Your task to perform on an android device: Open calendar and show me the second week of next month Image 0: 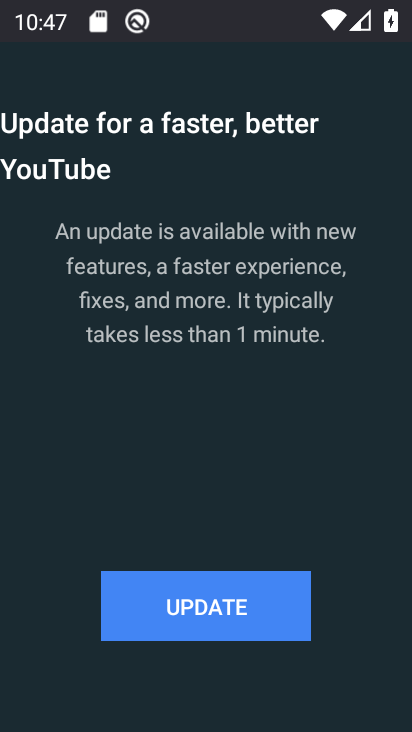
Step 0: press home button
Your task to perform on an android device: Open calendar and show me the second week of next month Image 1: 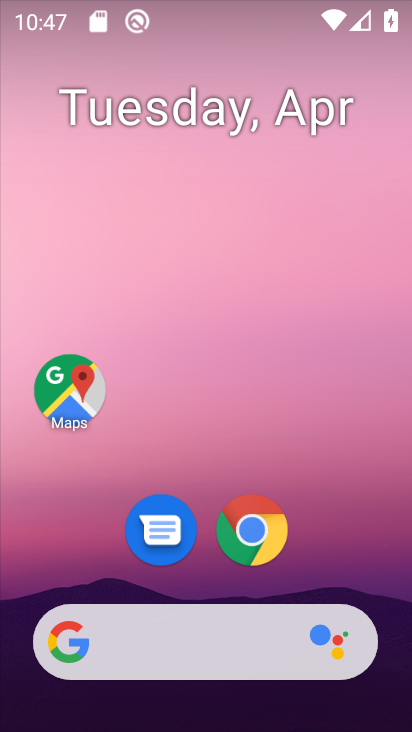
Step 1: drag from (181, 509) to (242, 206)
Your task to perform on an android device: Open calendar and show me the second week of next month Image 2: 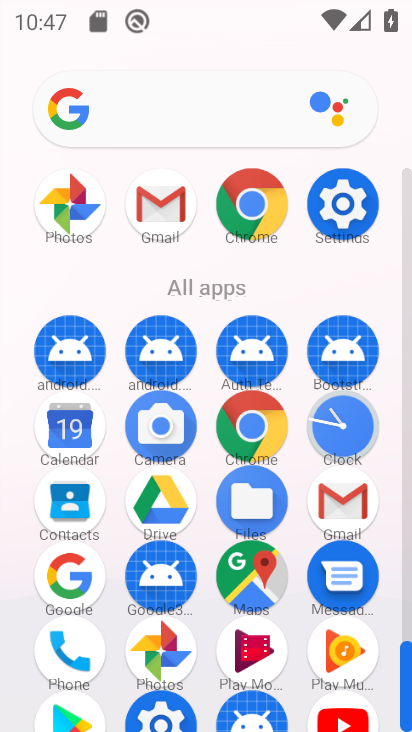
Step 2: click (76, 436)
Your task to perform on an android device: Open calendar and show me the second week of next month Image 3: 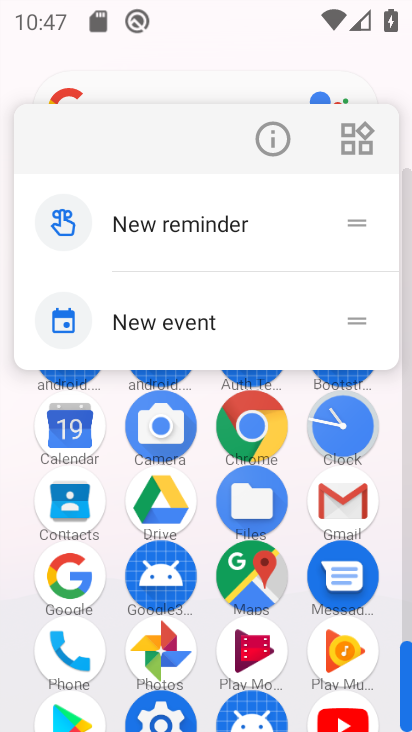
Step 3: click (77, 442)
Your task to perform on an android device: Open calendar and show me the second week of next month Image 4: 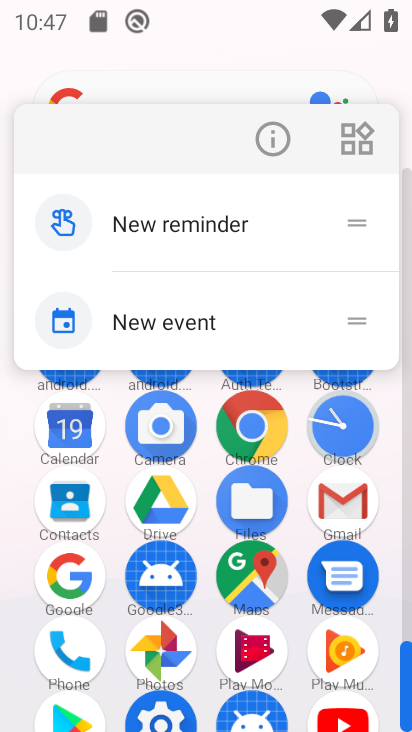
Step 4: click (70, 442)
Your task to perform on an android device: Open calendar and show me the second week of next month Image 5: 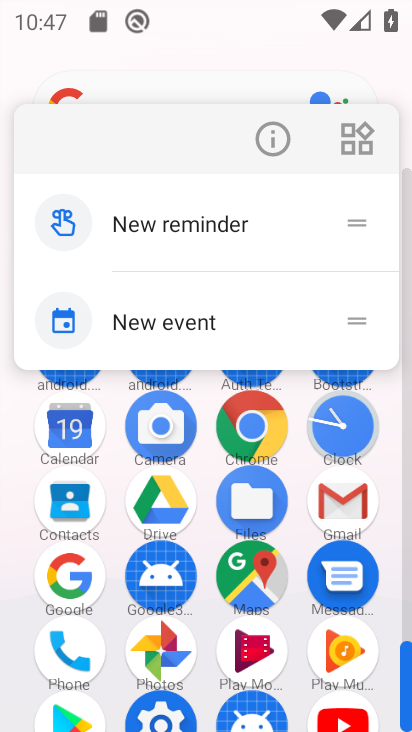
Step 5: click (67, 433)
Your task to perform on an android device: Open calendar and show me the second week of next month Image 6: 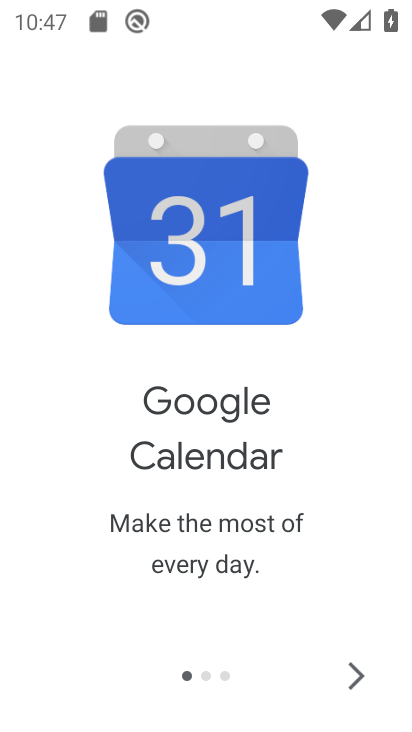
Step 6: click (350, 667)
Your task to perform on an android device: Open calendar and show me the second week of next month Image 7: 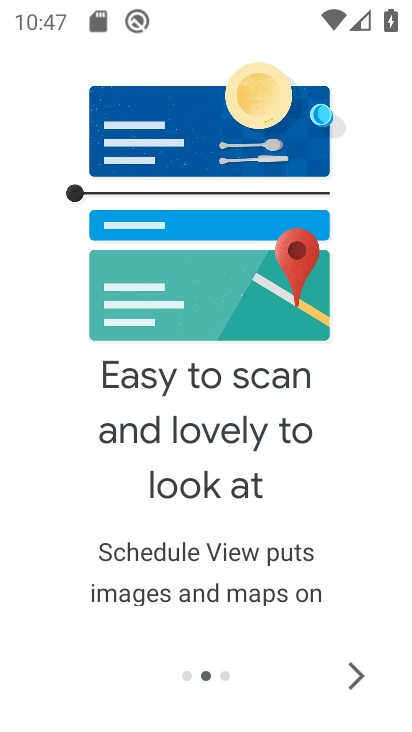
Step 7: click (354, 662)
Your task to perform on an android device: Open calendar and show me the second week of next month Image 8: 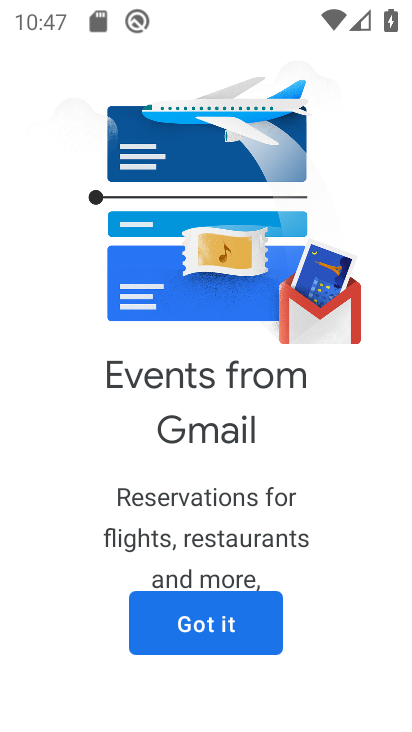
Step 8: click (222, 629)
Your task to perform on an android device: Open calendar and show me the second week of next month Image 9: 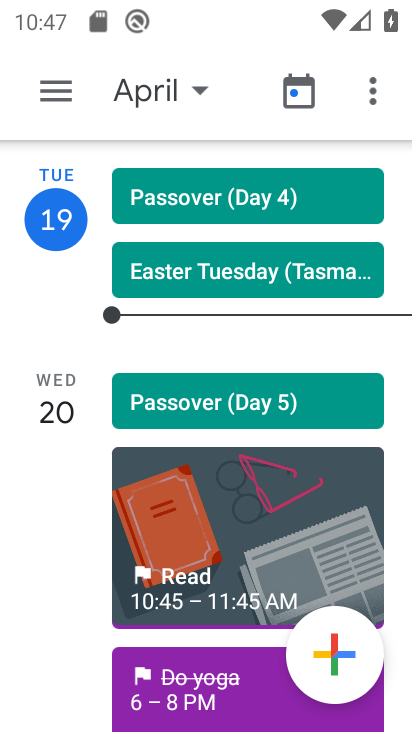
Step 9: click (155, 95)
Your task to perform on an android device: Open calendar and show me the second week of next month Image 10: 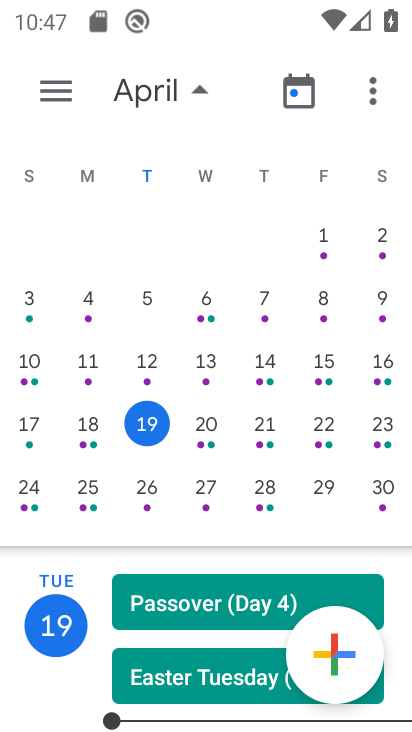
Step 10: drag from (334, 394) to (21, 314)
Your task to perform on an android device: Open calendar and show me the second week of next month Image 11: 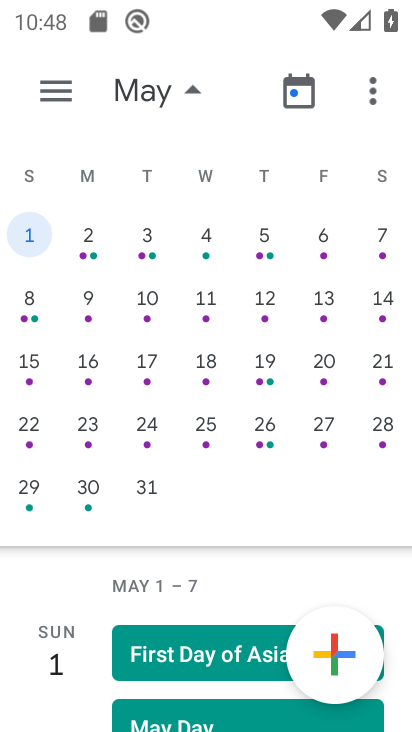
Step 11: click (28, 302)
Your task to perform on an android device: Open calendar and show me the second week of next month Image 12: 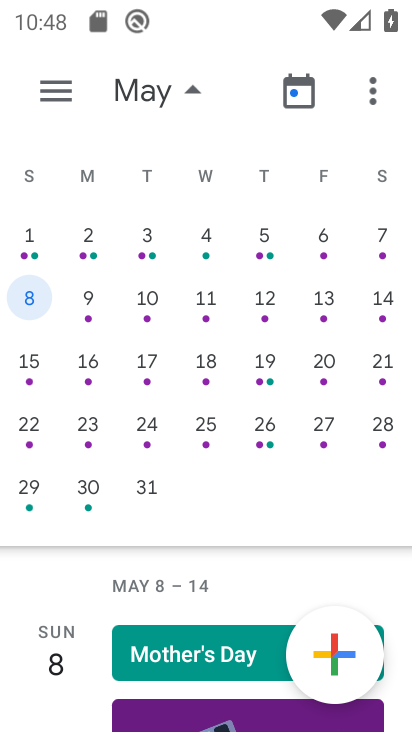
Step 12: click (65, 101)
Your task to perform on an android device: Open calendar and show me the second week of next month Image 13: 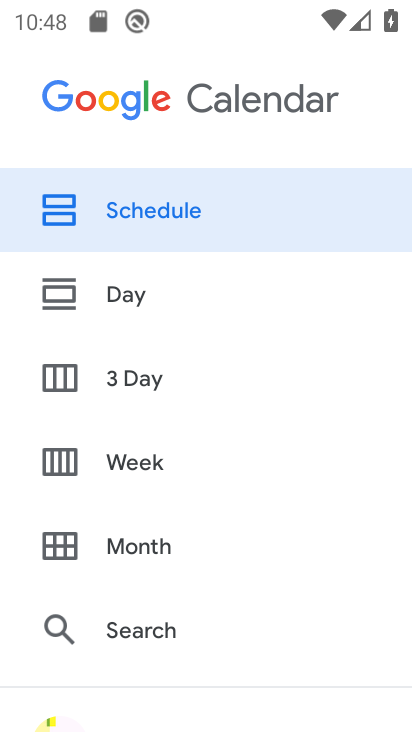
Step 13: click (151, 464)
Your task to perform on an android device: Open calendar and show me the second week of next month Image 14: 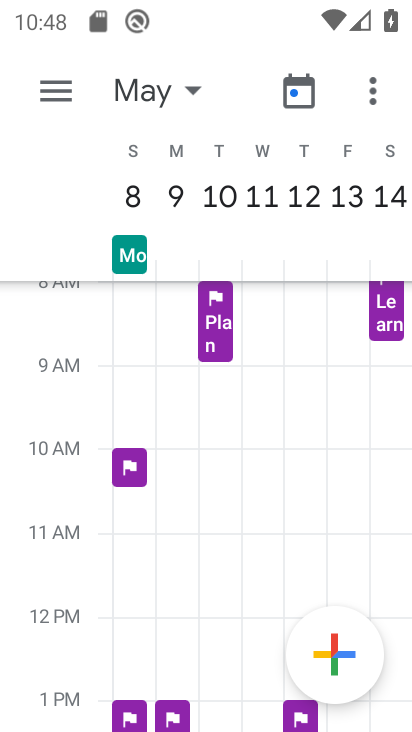
Step 14: task complete